Your task to perform on an android device: turn pop-ups on in chrome Image 0: 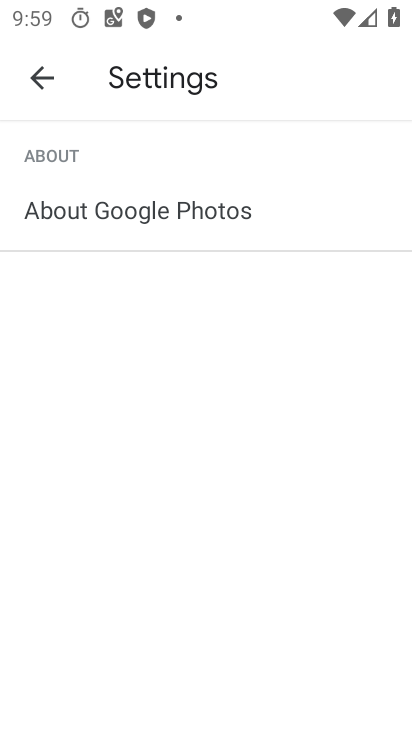
Step 0: press home button
Your task to perform on an android device: turn pop-ups on in chrome Image 1: 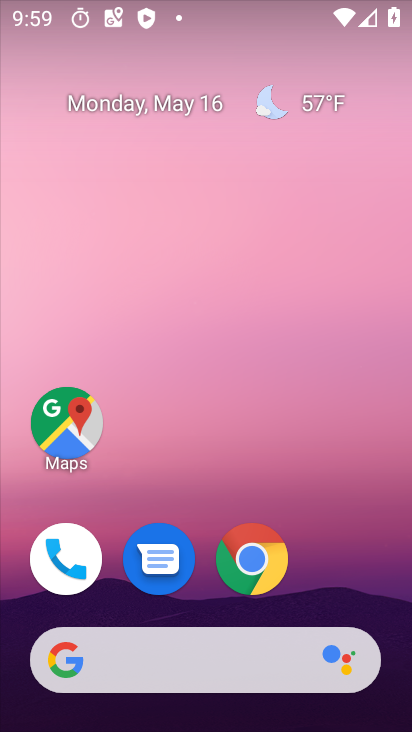
Step 1: drag from (340, 524) to (297, 445)
Your task to perform on an android device: turn pop-ups on in chrome Image 2: 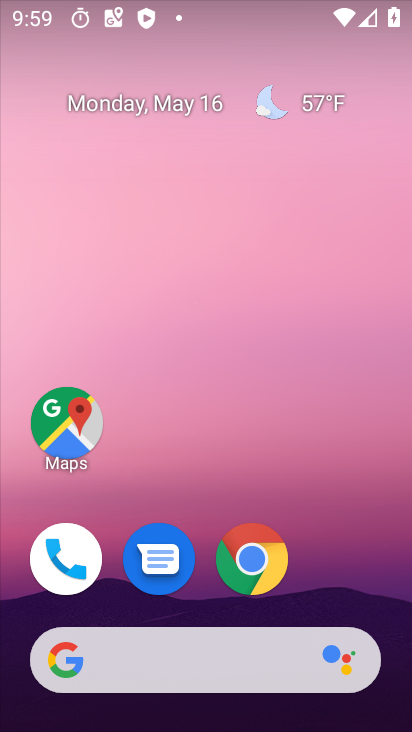
Step 2: click (250, 557)
Your task to perform on an android device: turn pop-ups on in chrome Image 3: 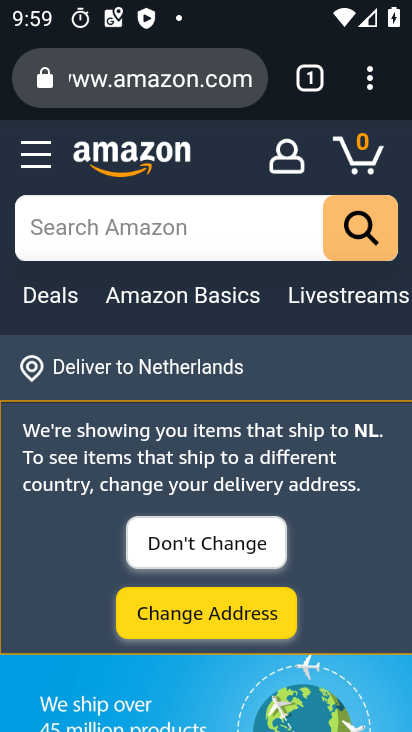
Step 3: click (376, 80)
Your task to perform on an android device: turn pop-ups on in chrome Image 4: 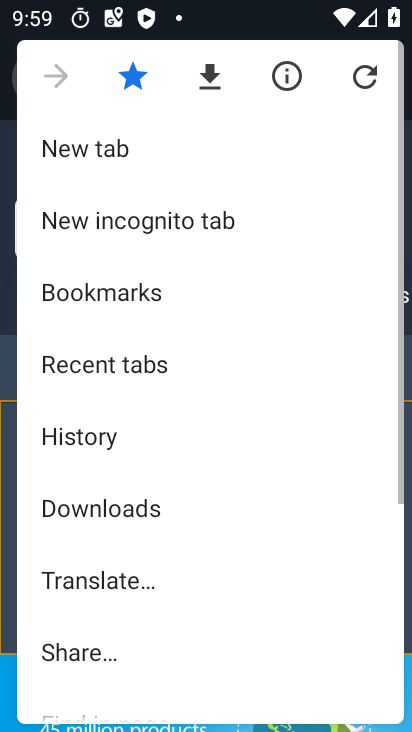
Step 4: drag from (192, 621) to (244, 210)
Your task to perform on an android device: turn pop-ups on in chrome Image 5: 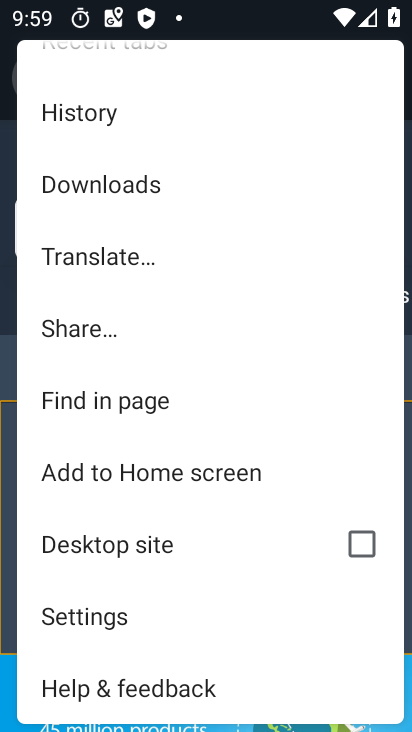
Step 5: click (76, 627)
Your task to perform on an android device: turn pop-ups on in chrome Image 6: 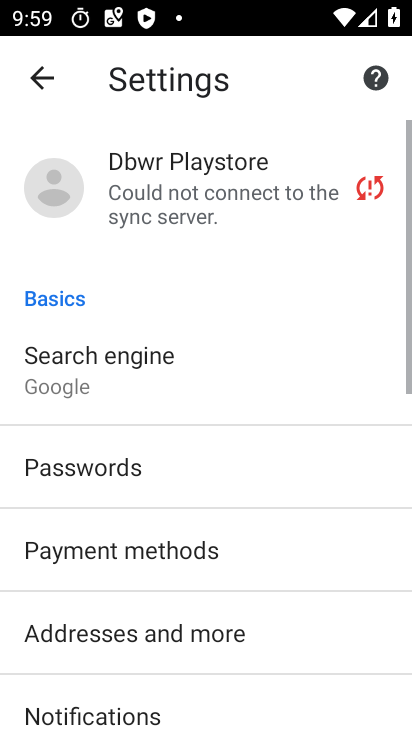
Step 6: drag from (198, 669) to (247, 255)
Your task to perform on an android device: turn pop-ups on in chrome Image 7: 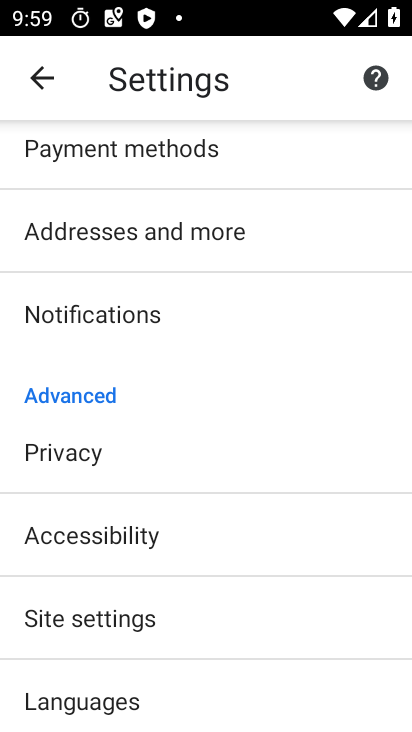
Step 7: click (108, 625)
Your task to perform on an android device: turn pop-ups on in chrome Image 8: 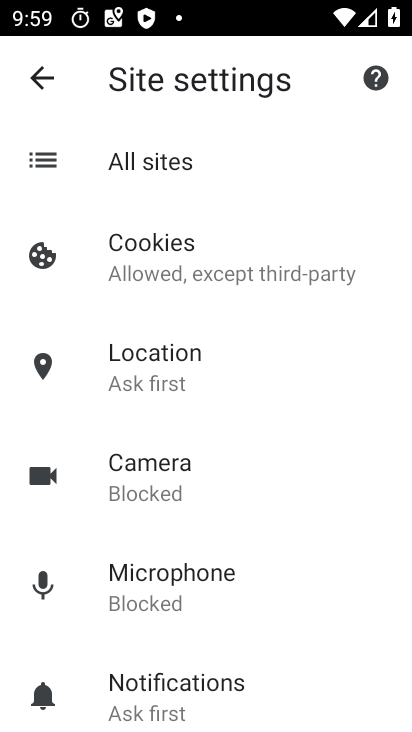
Step 8: drag from (269, 652) to (305, 230)
Your task to perform on an android device: turn pop-ups on in chrome Image 9: 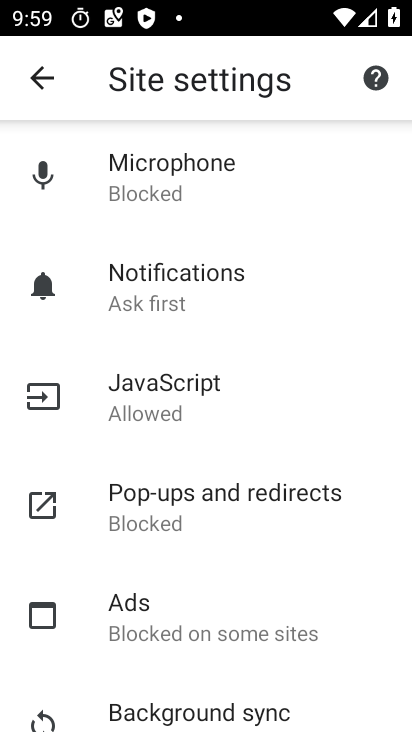
Step 9: click (213, 492)
Your task to perform on an android device: turn pop-ups on in chrome Image 10: 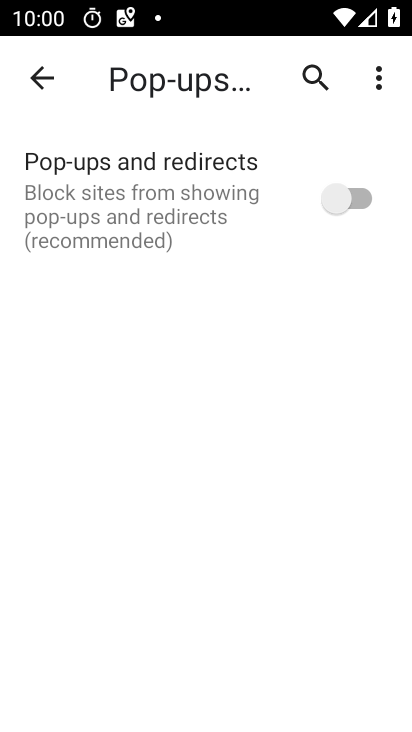
Step 10: click (367, 197)
Your task to perform on an android device: turn pop-ups on in chrome Image 11: 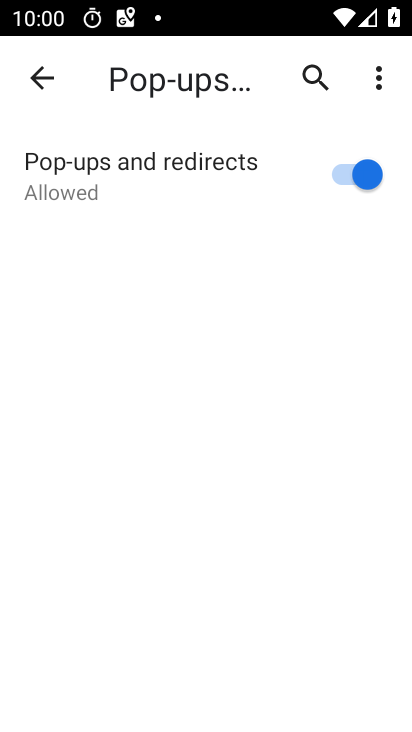
Step 11: task complete